Your task to perform on an android device: change the clock display to show seconds Image 0: 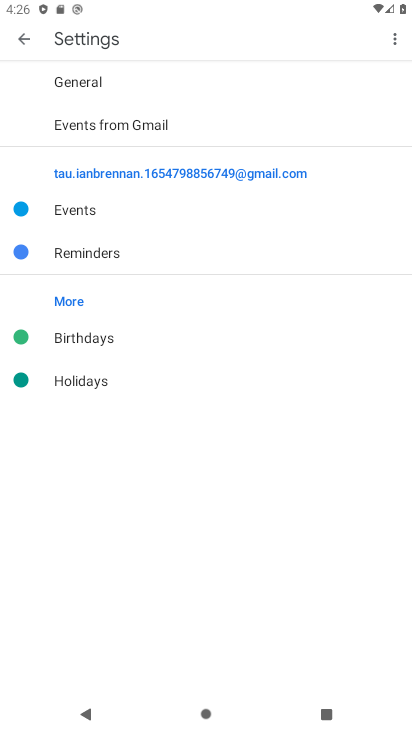
Step 0: press home button
Your task to perform on an android device: change the clock display to show seconds Image 1: 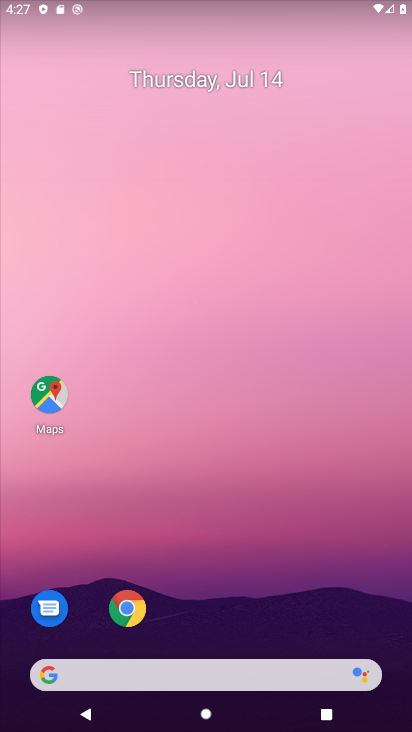
Step 1: drag from (189, 636) to (218, 202)
Your task to perform on an android device: change the clock display to show seconds Image 2: 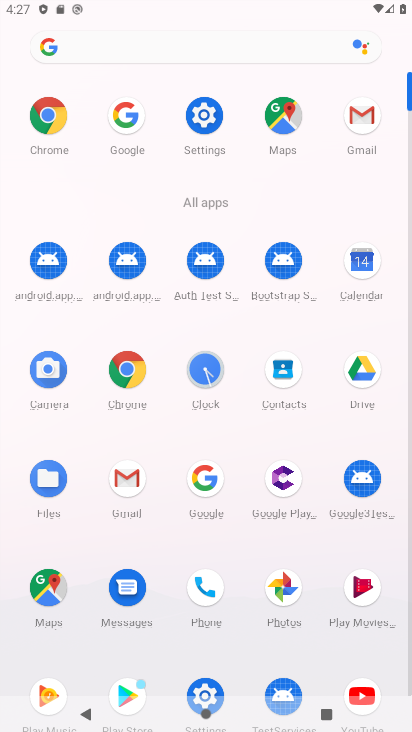
Step 2: click (214, 379)
Your task to perform on an android device: change the clock display to show seconds Image 3: 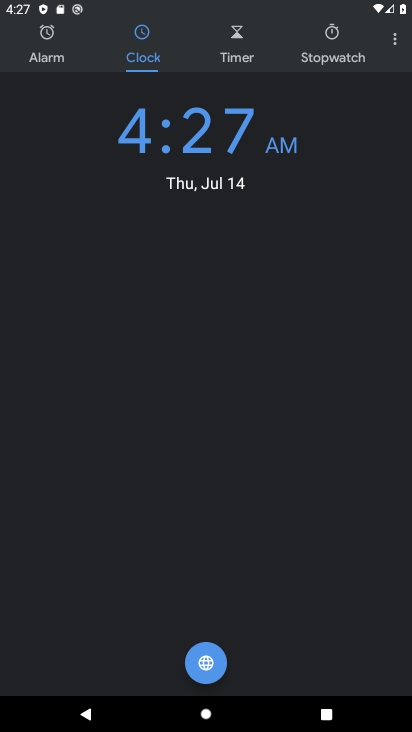
Step 3: click (392, 42)
Your task to perform on an android device: change the clock display to show seconds Image 4: 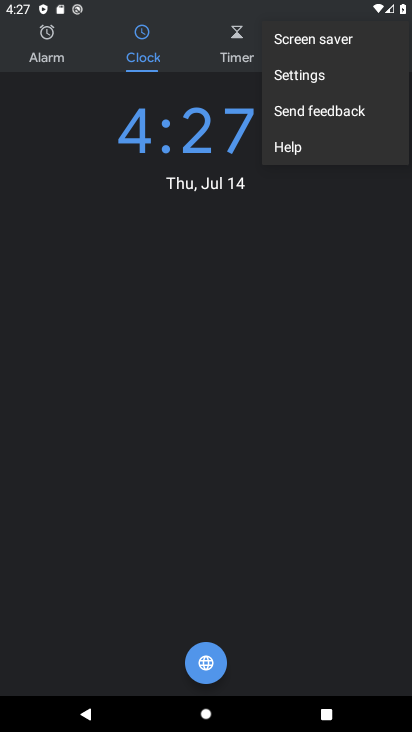
Step 4: click (296, 75)
Your task to perform on an android device: change the clock display to show seconds Image 5: 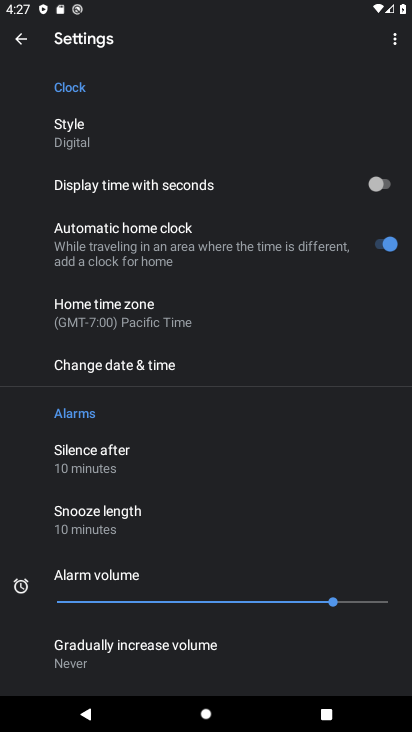
Step 5: click (379, 183)
Your task to perform on an android device: change the clock display to show seconds Image 6: 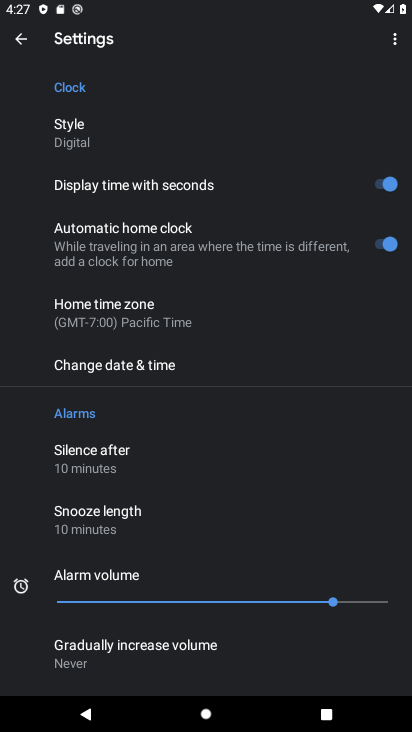
Step 6: task complete